Your task to perform on an android device: turn off javascript in the chrome app Image 0: 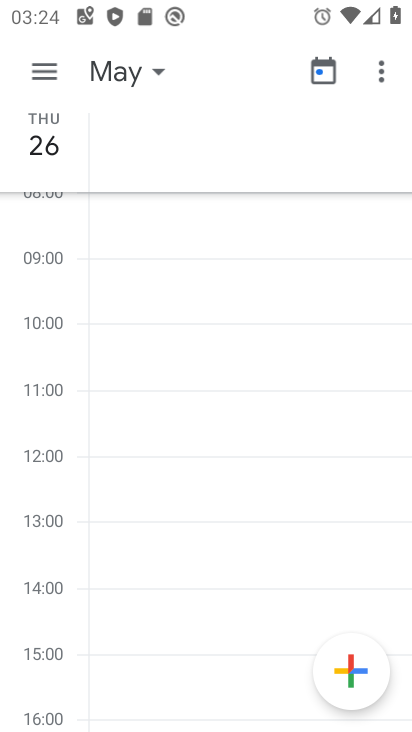
Step 0: press home button
Your task to perform on an android device: turn off javascript in the chrome app Image 1: 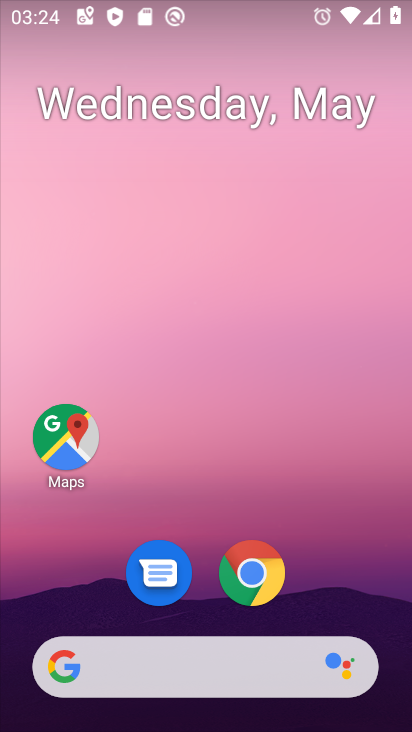
Step 1: click (251, 575)
Your task to perform on an android device: turn off javascript in the chrome app Image 2: 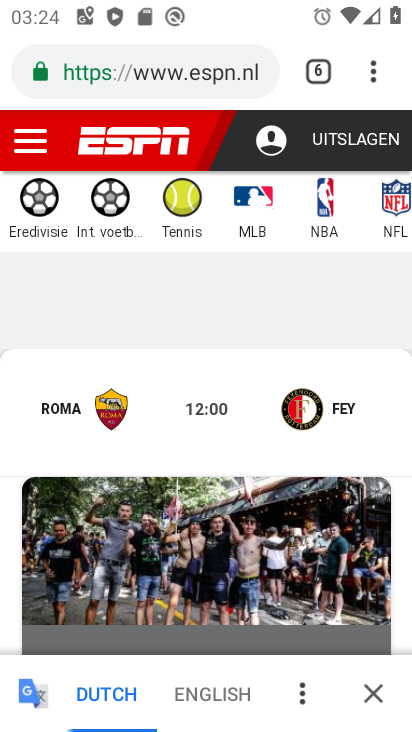
Step 2: click (371, 74)
Your task to perform on an android device: turn off javascript in the chrome app Image 3: 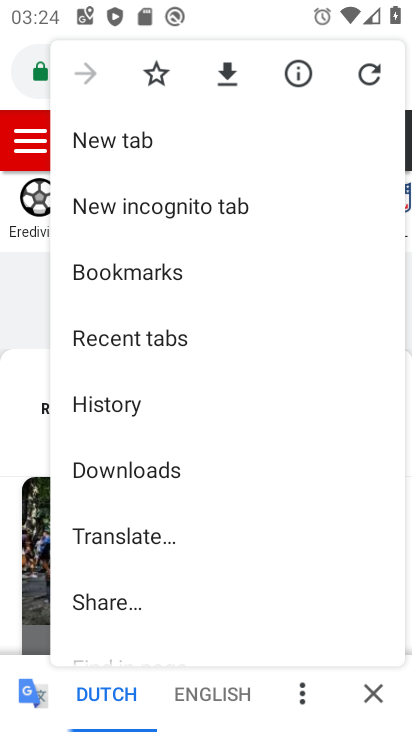
Step 3: drag from (138, 618) to (164, 234)
Your task to perform on an android device: turn off javascript in the chrome app Image 4: 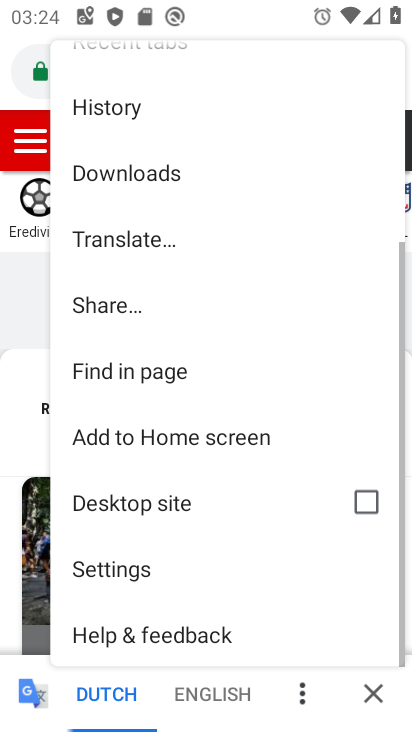
Step 4: click (130, 567)
Your task to perform on an android device: turn off javascript in the chrome app Image 5: 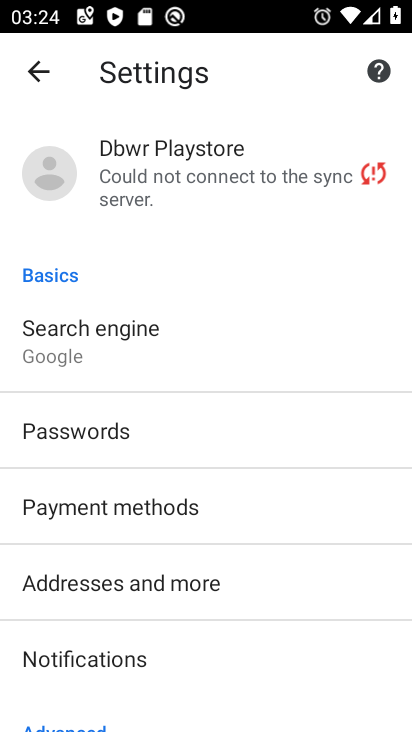
Step 5: drag from (152, 687) to (150, 287)
Your task to perform on an android device: turn off javascript in the chrome app Image 6: 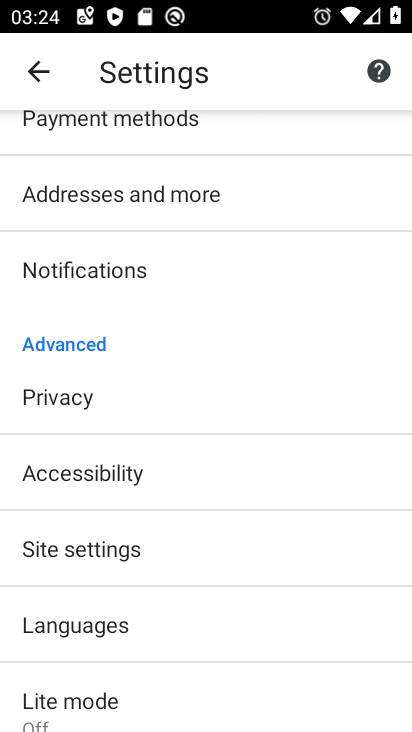
Step 6: click (89, 542)
Your task to perform on an android device: turn off javascript in the chrome app Image 7: 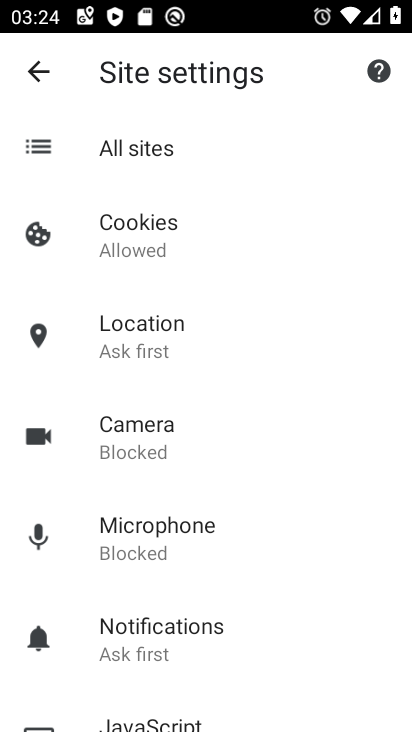
Step 7: drag from (146, 682) to (146, 305)
Your task to perform on an android device: turn off javascript in the chrome app Image 8: 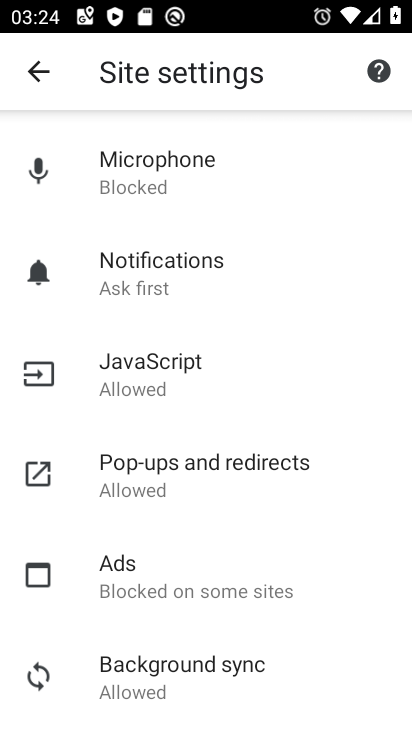
Step 8: click (134, 370)
Your task to perform on an android device: turn off javascript in the chrome app Image 9: 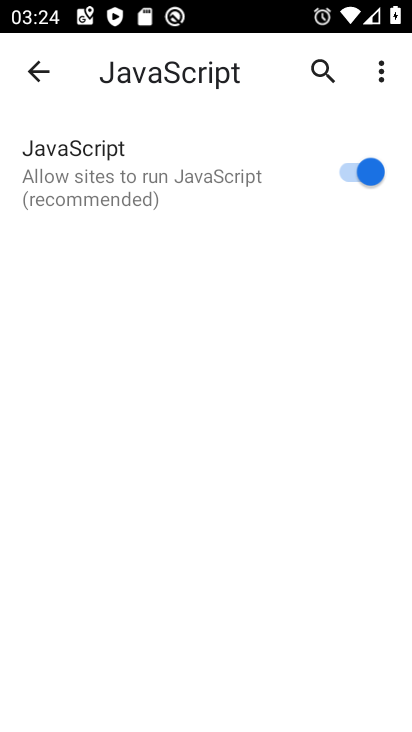
Step 9: click (353, 168)
Your task to perform on an android device: turn off javascript in the chrome app Image 10: 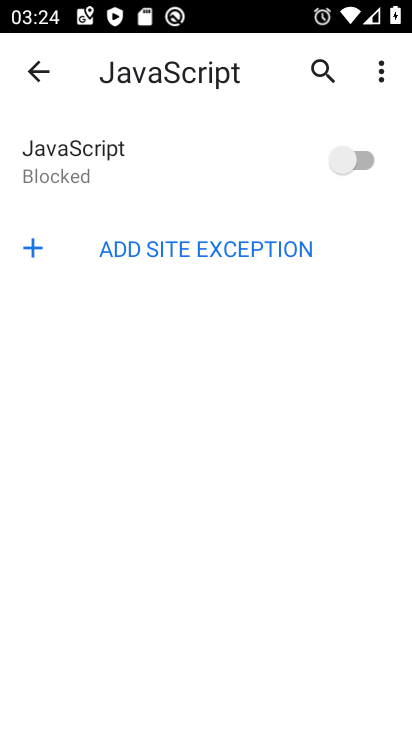
Step 10: task complete